Your task to perform on an android device: Go to battery settings Image 0: 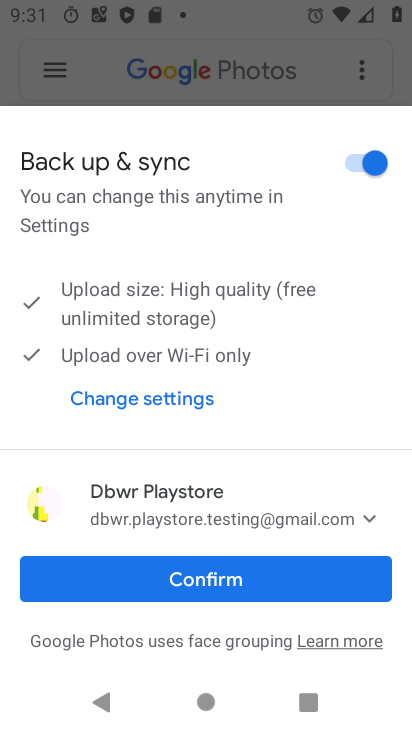
Step 0: press home button
Your task to perform on an android device: Go to battery settings Image 1: 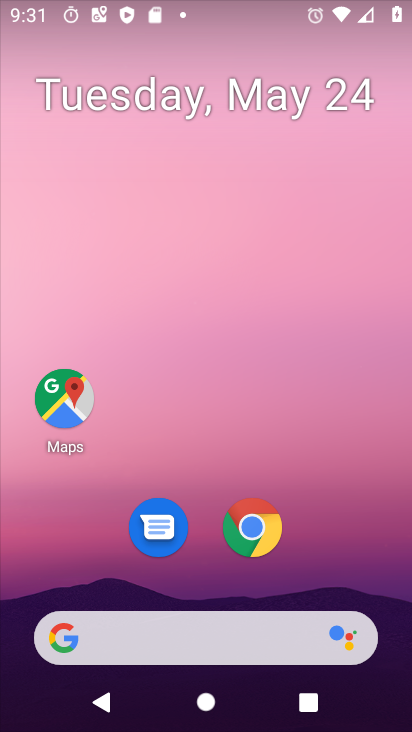
Step 1: drag from (400, 669) to (390, 252)
Your task to perform on an android device: Go to battery settings Image 2: 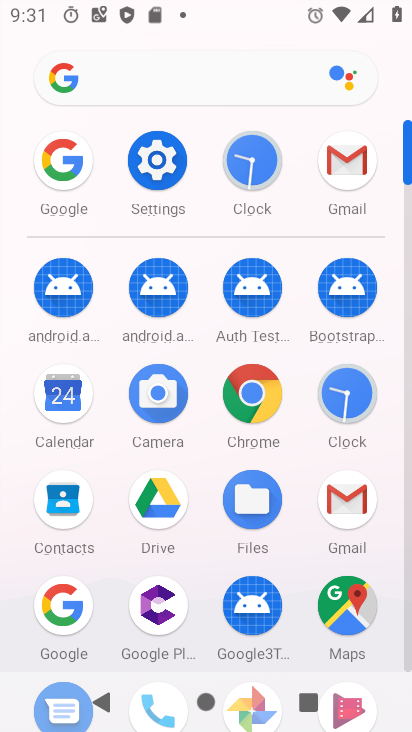
Step 2: click (162, 150)
Your task to perform on an android device: Go to battery settings Image 3: 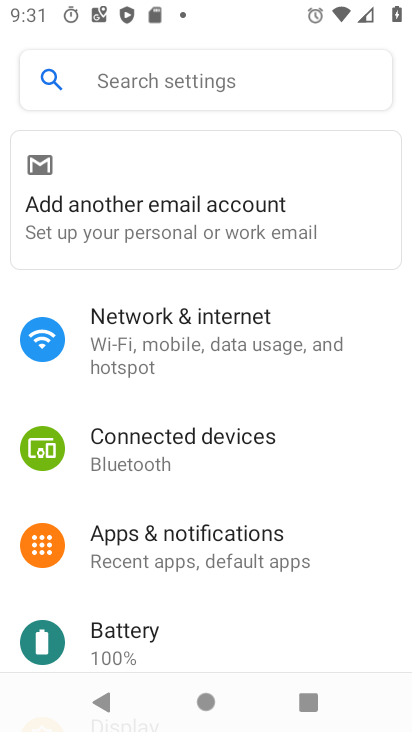
Step 3: click (121, 639)
Your task to perform on an android device: Go to battery settings Image 4: 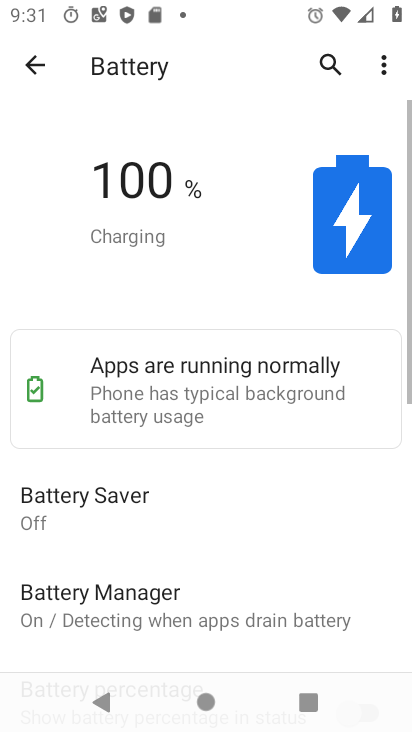
Step 4: task complete